Your task to perform on an android device: turn off data saver in the chrome app Image 0: 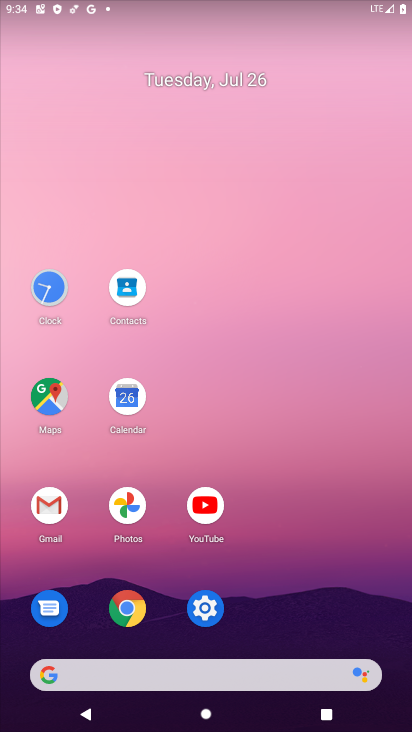
Step 0: click (127, 609)
Your task to perform on an android device: turn off data saver in the chrome app Image 1: 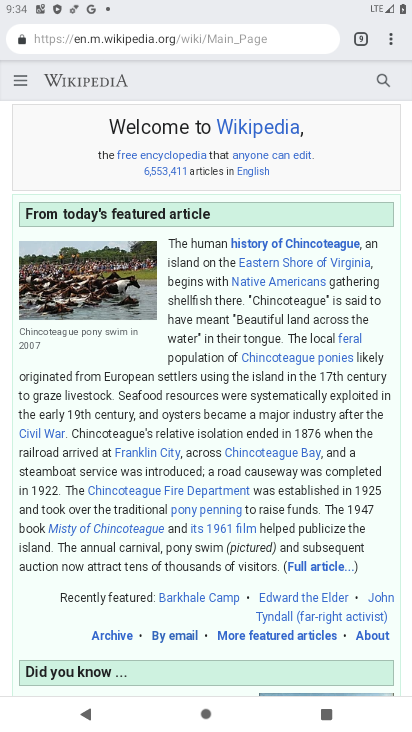
Step 1: click (389, 37)
Your task to perform on an android device: turn off data saver in the chrome app Image 2: 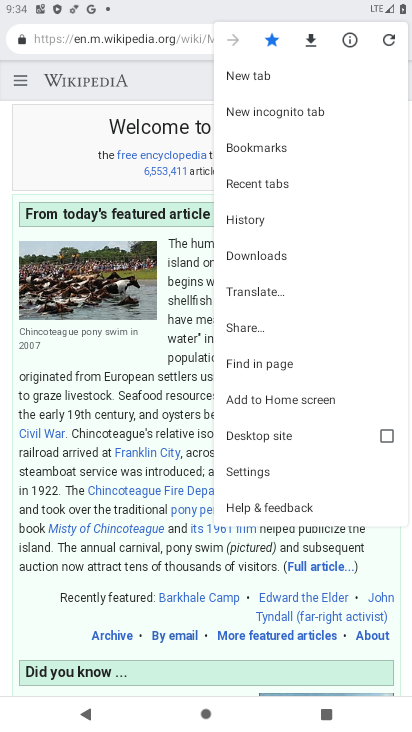
Step 2: click (254, 466)
Your task to perform on an android device: turn off data saver in the chrome app Image 3: 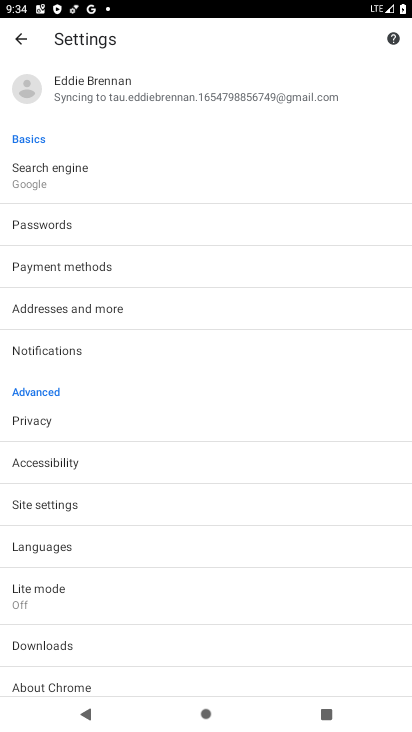
Step 3: click (51, 581)
Your task to perform on an android device: turn off data saver in the chrome app Image 4: 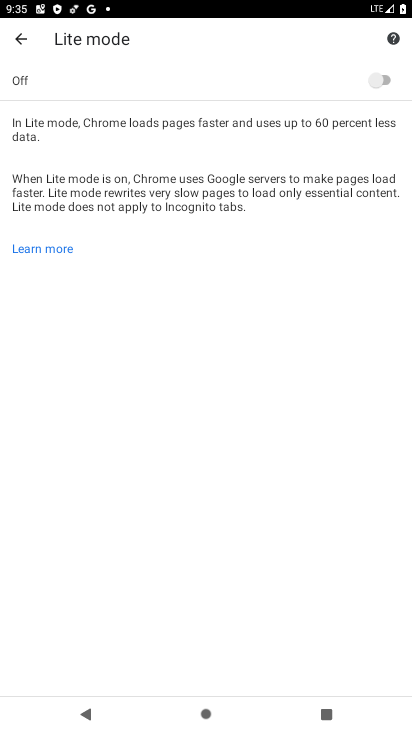
Step 4: task complete